Your task to perform on an android device: find which apps use the phone's location Image 0: 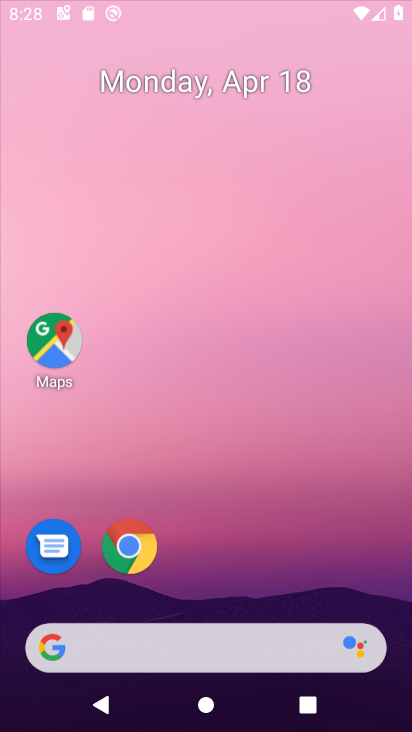
Step 0: drag from (344, 600) to (283, 152)
Your task to perform on an android device: find which apps use the phone's location Image 1: 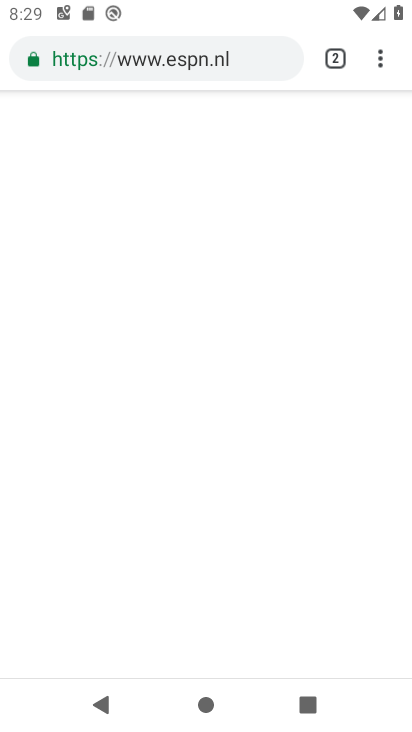
Step 1: press home button
Your task to perform on an android device: find which apps use the phone's location Image 2: 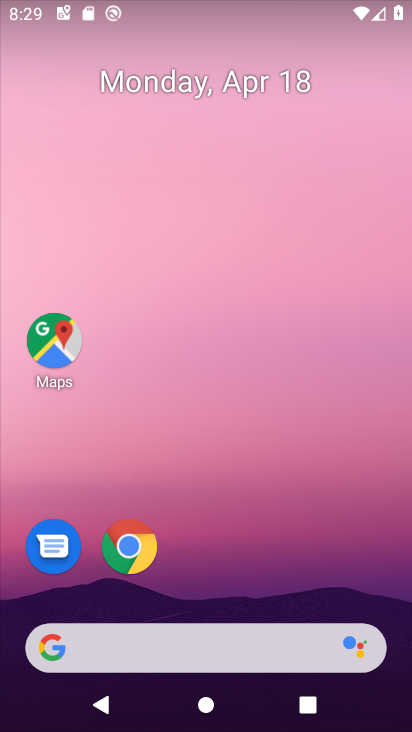
Step 2: drag from (301, 595) to (253, 165)
Your task to perform on an android device: find which apps use the phone's location Image 3: 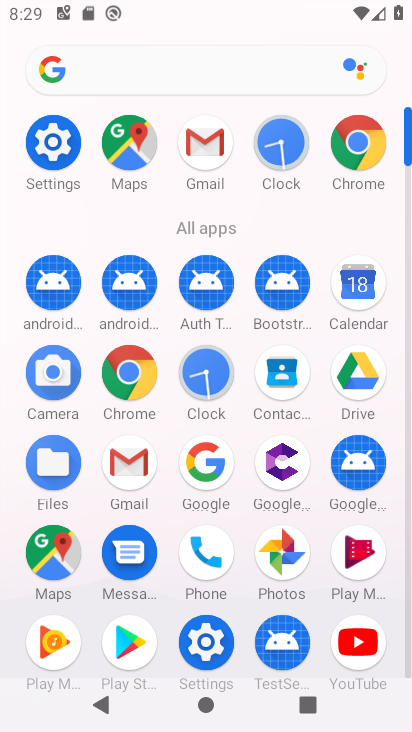
Step 3: click (216, 649)
Your task to perform on an android device: find which apps use the phone's location Image 4: 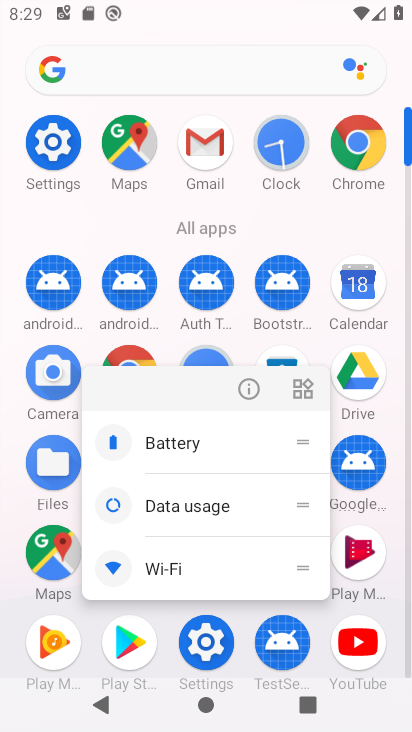
Step 4: click (216, 649)
Your task to perform on an android device: find which apps use the phone's location Image 5: 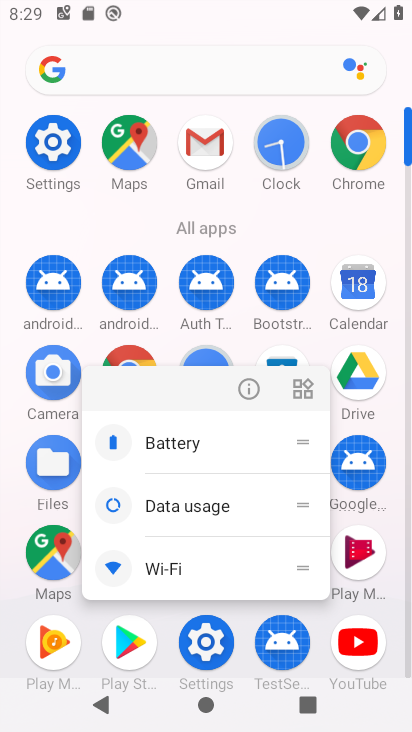
Step 5: click (216, 649)
Your task to perform on an android device: find which apps use the phone's location Image 6: 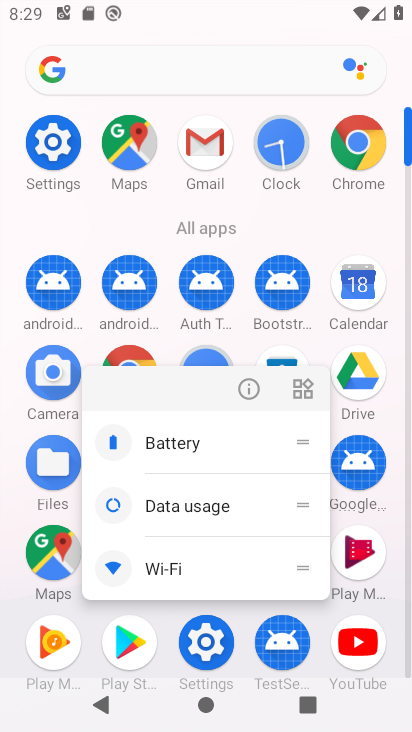
Step 6: click (205, 648)
Your task to perform on an android device: find which apps use the phone's location Image 7: 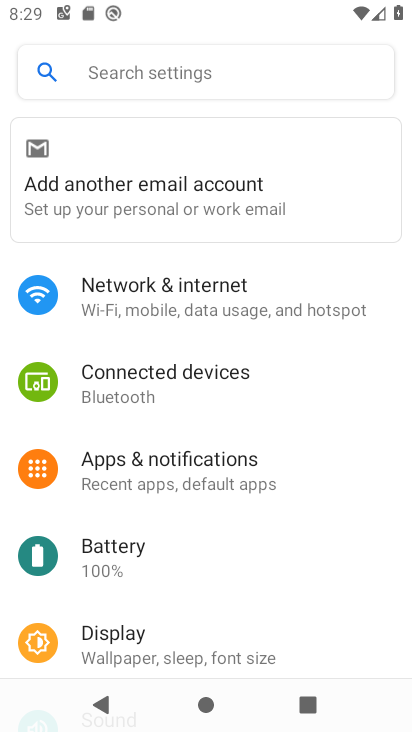
Step 7: drag from (251, 600) to (205, 196)
Your task to perform on an android device: find which apps use the phone's location Image 8: 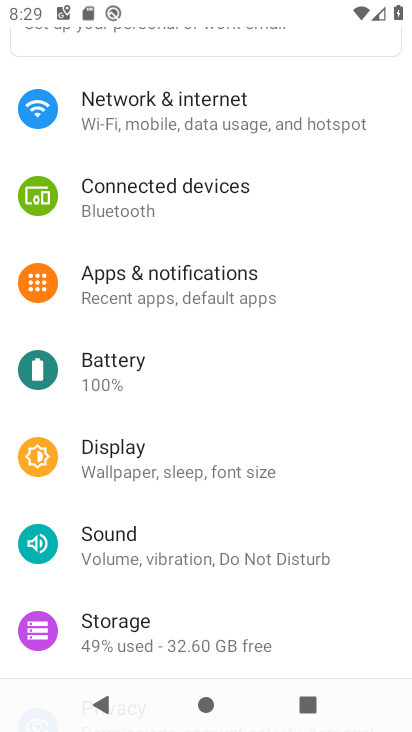
Step 8: drag from (324, 588) to (249, 291)
Your task to perform on an android device: find which apps use the phone's location Image 9: 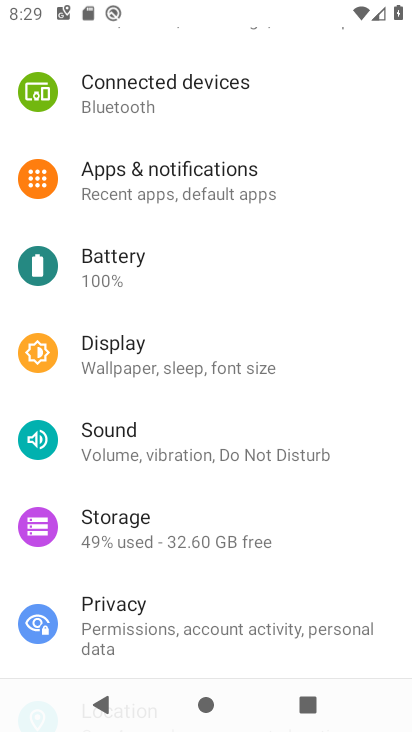
Step 9: drag from (318, 551) to (262, 232)
Your task to perform on an android device: find which apps use the phone's location Image 10: 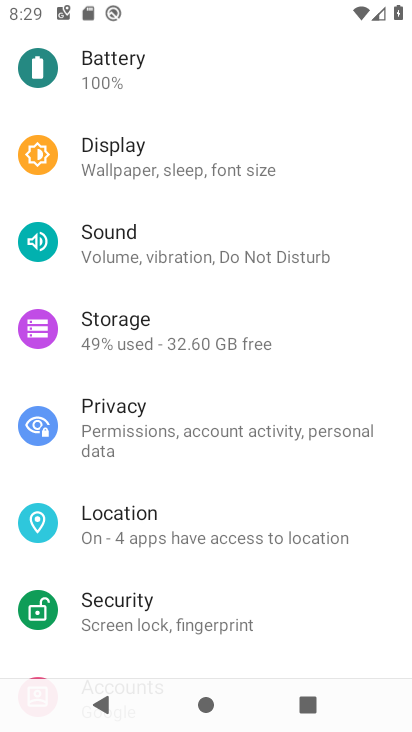
Step 10: click (313, 558)
Your task to perform on an android device: find which apps use the phone's location Image 11: 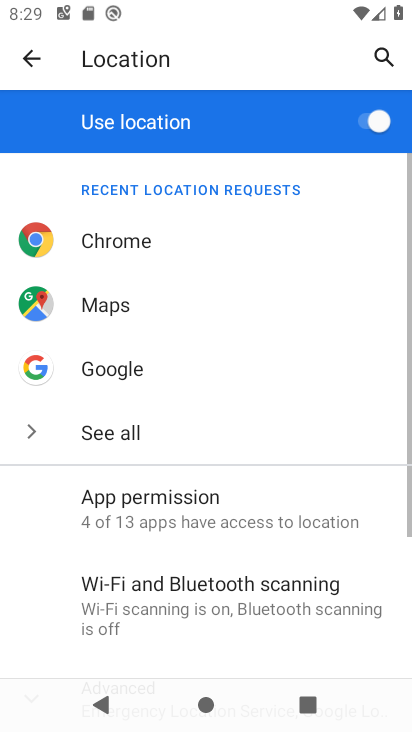
Step 11: task complete